Your task to perform on an android device: Search for macbook on bestbuy.com, select the first entry, and add it to the cart. Image 0: 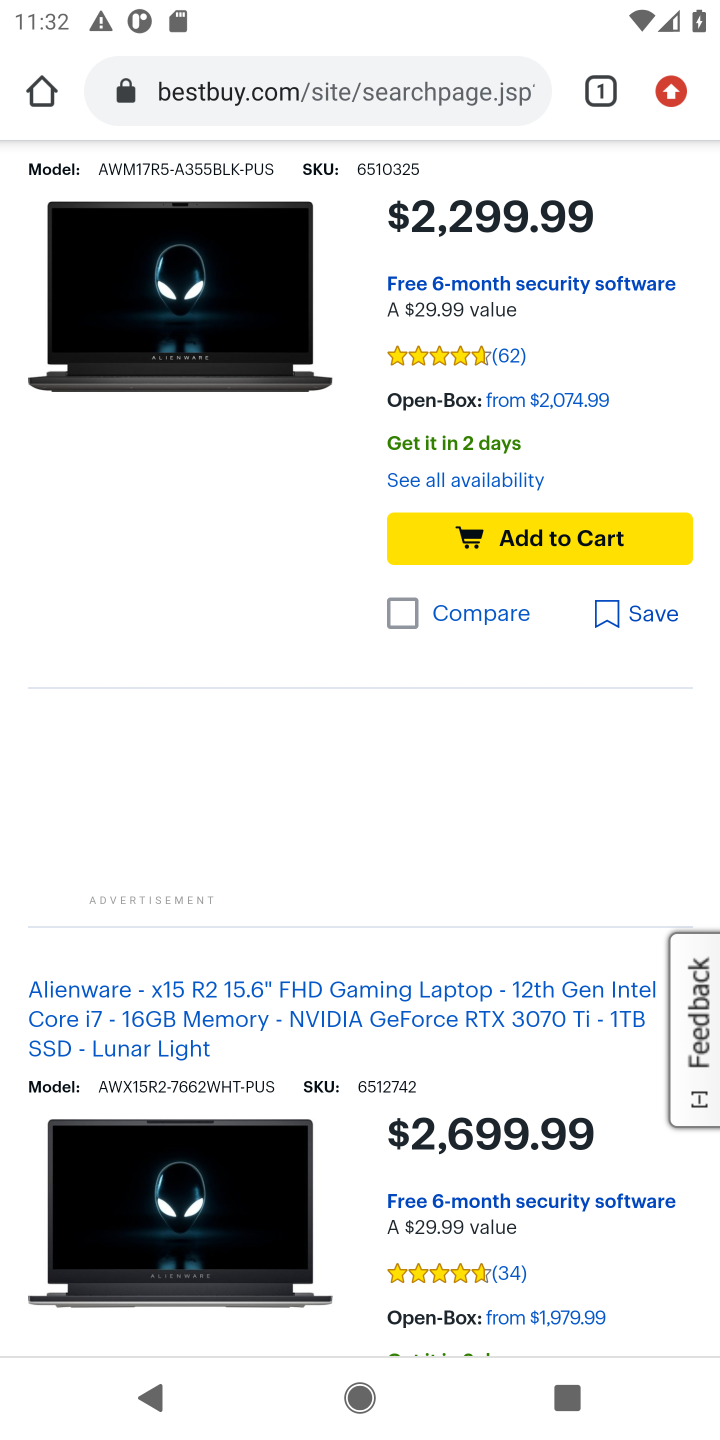
Step 0: press home button
Your task to perform on an android device: Search for macbook on bestbuy.com, select the first entry, and add it to the cart. Image 1: 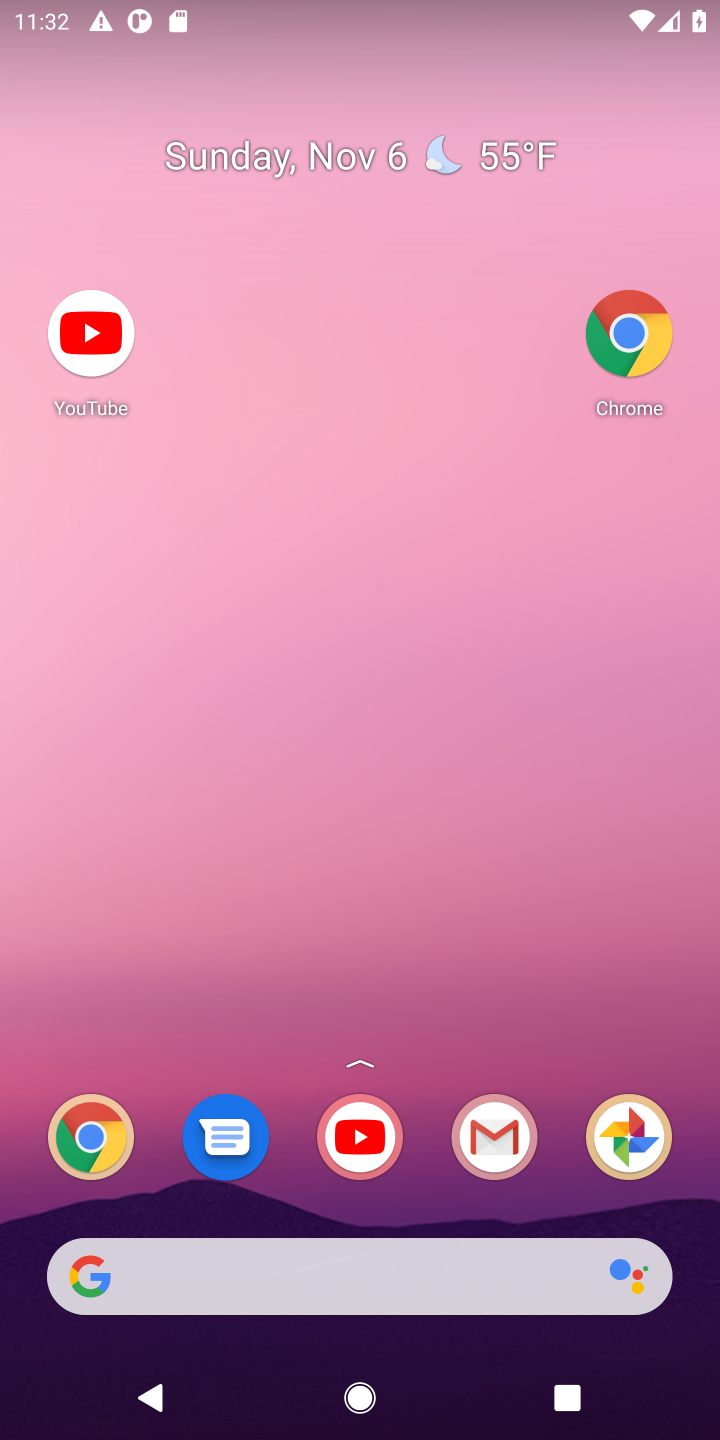
Step 1: drag from (428, 1208) to (316, 219)
Your task to perform on an android device: Search for macbook on bestbuy.com, select the first entry, and add it to the cart. Image 2: 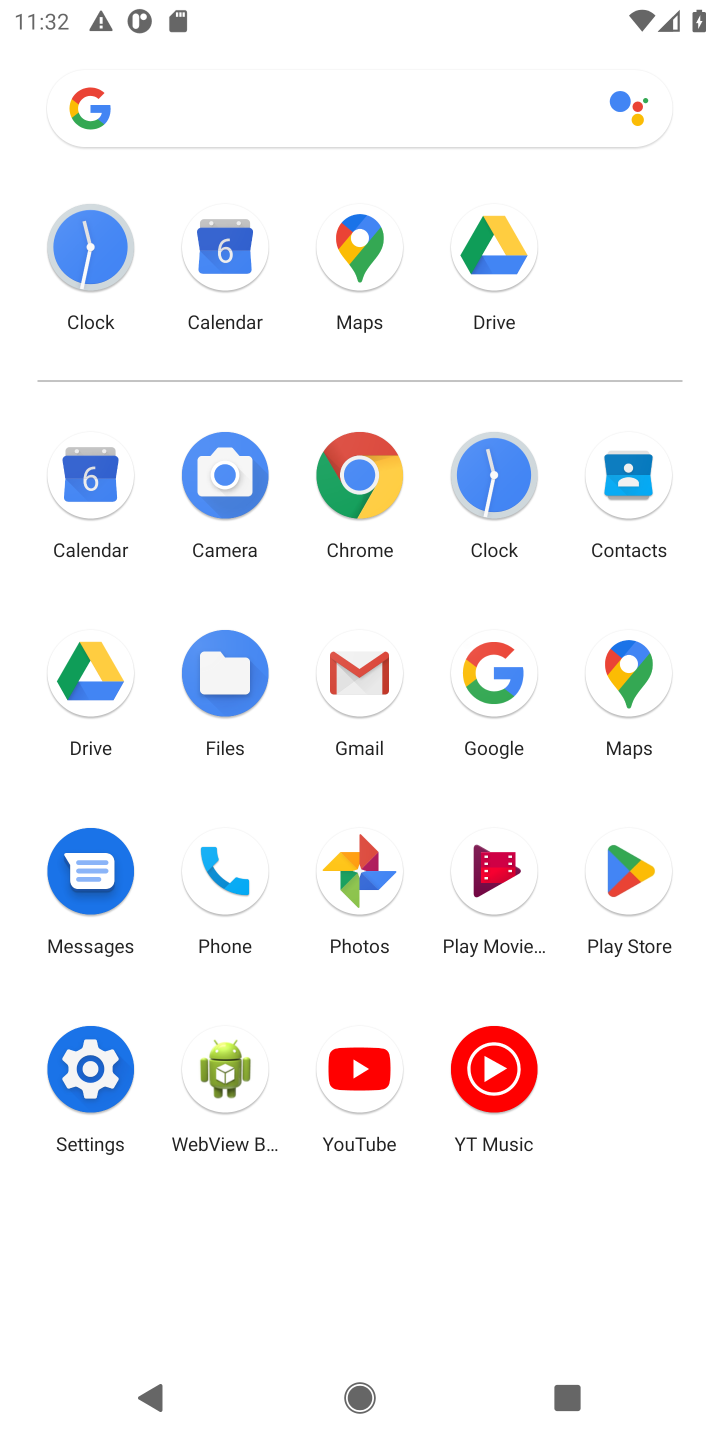
Step 2: click (360, 479)
Your task to perform on an android device: Search for macbook on bestbuy.com, select the first entry, and add it to the cart. Image 3: 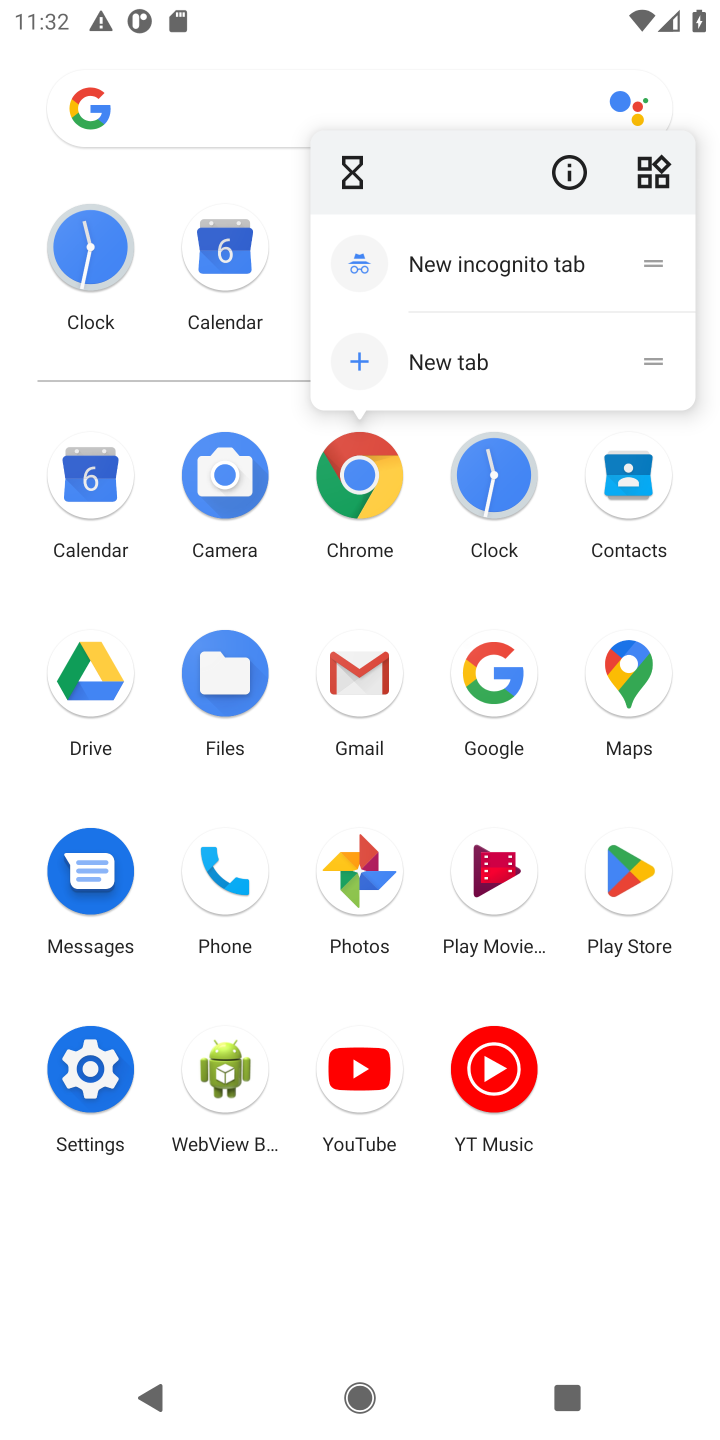
Step 3: click (350, 473)
Your task to perform on an android device: Search for macbook on bestbuy.com, select the first entry, and add it to the cart. Image 4: 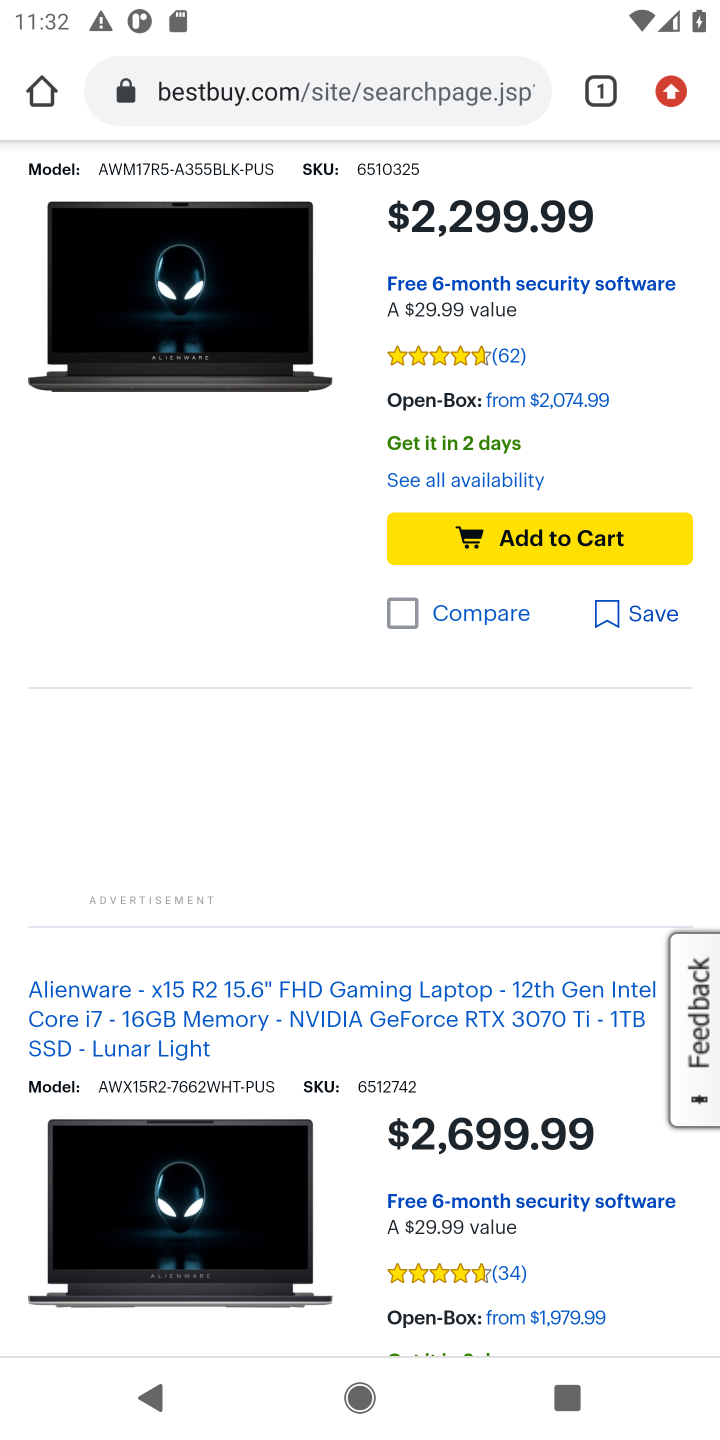
Step 4: click (386, 81)
Your task to perform on an android device: Search for macbook on bestbuy.com, select the first entry, and add it to the cart. Image 5: 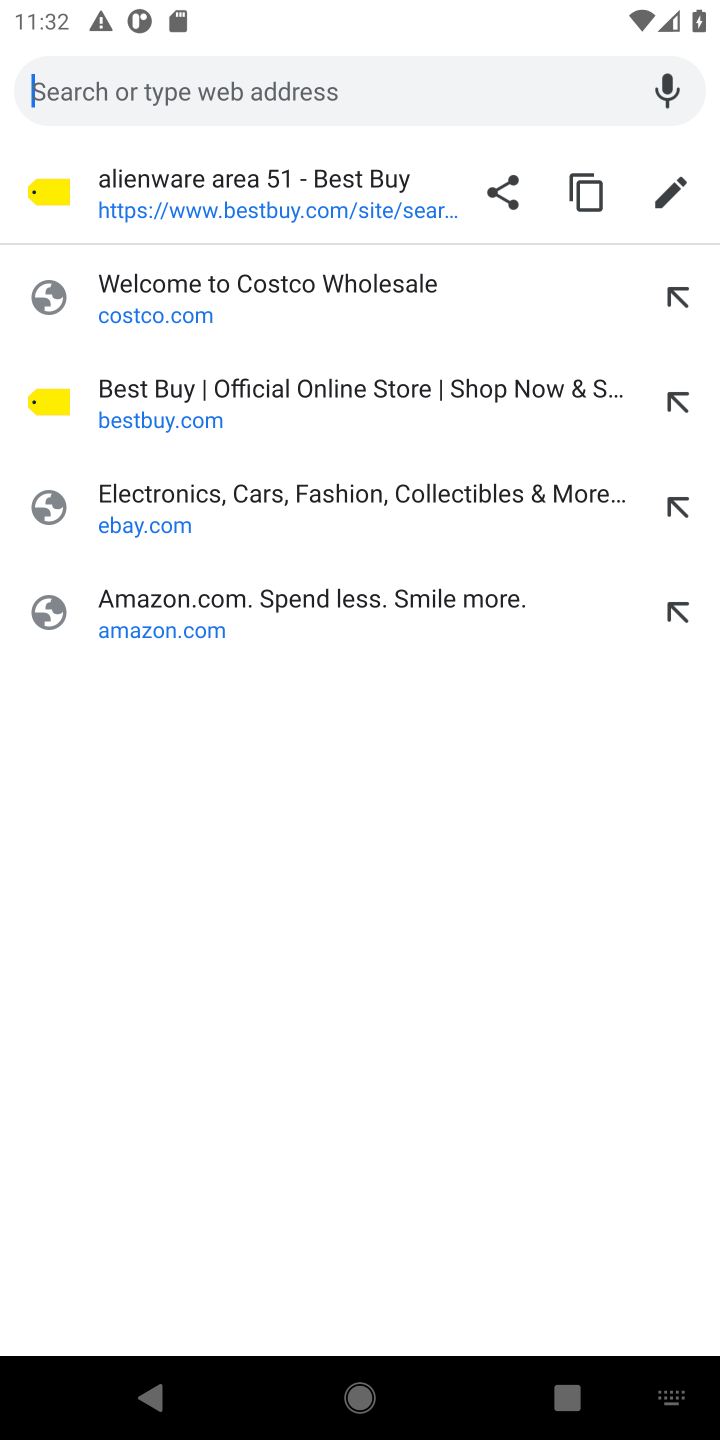
Step 5: type "bestbuy.com"
Your task to perform on an android device: Search for macbook on bestbuy.com, select the first entry, and add it to the cart. Image 6: 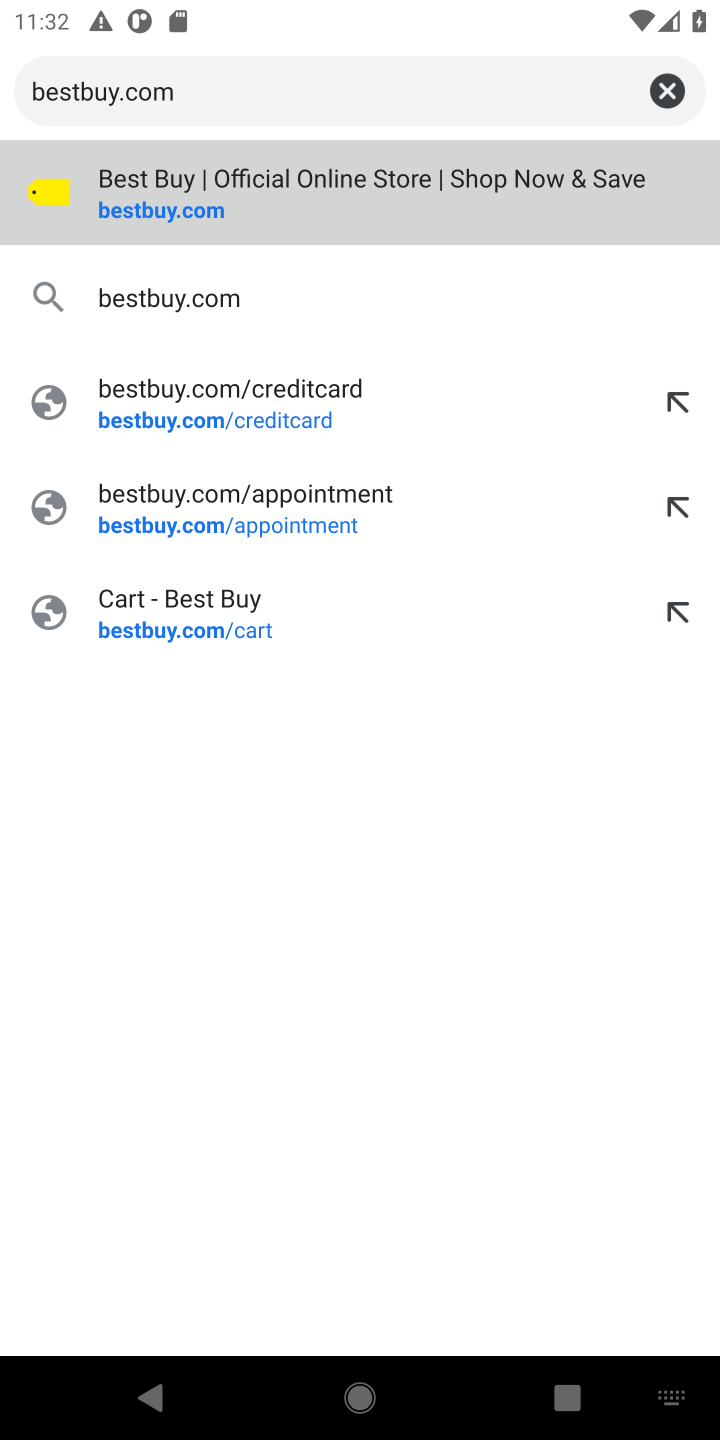
Step 6: press enter
Your task to perform on an android device: Search for macbook on bestbuy.com, select the first entry, and add it to the cart. Image 7: 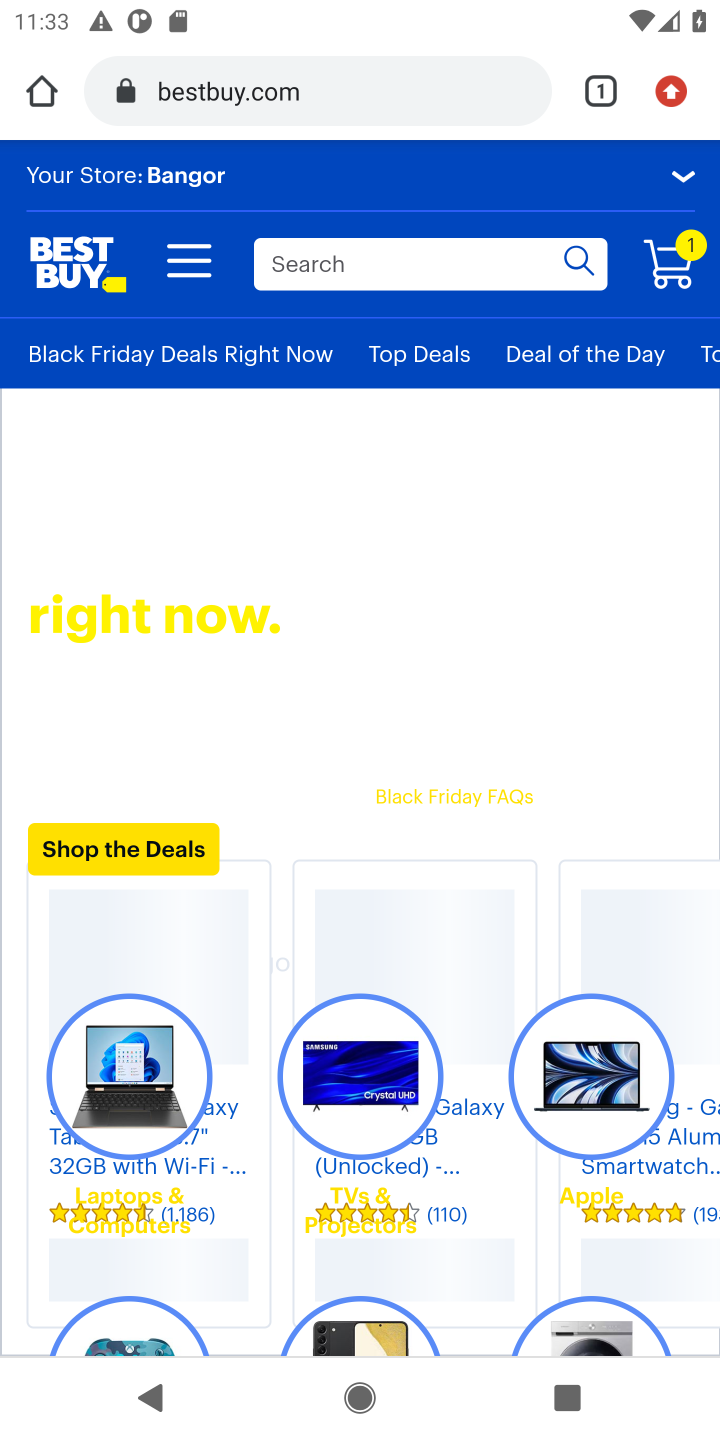
Step 7: click (446, 259)
Your task to perform on an android device: Search for macbook on bestbuy.com, select the first entry, and add it to the cart. Image 8: 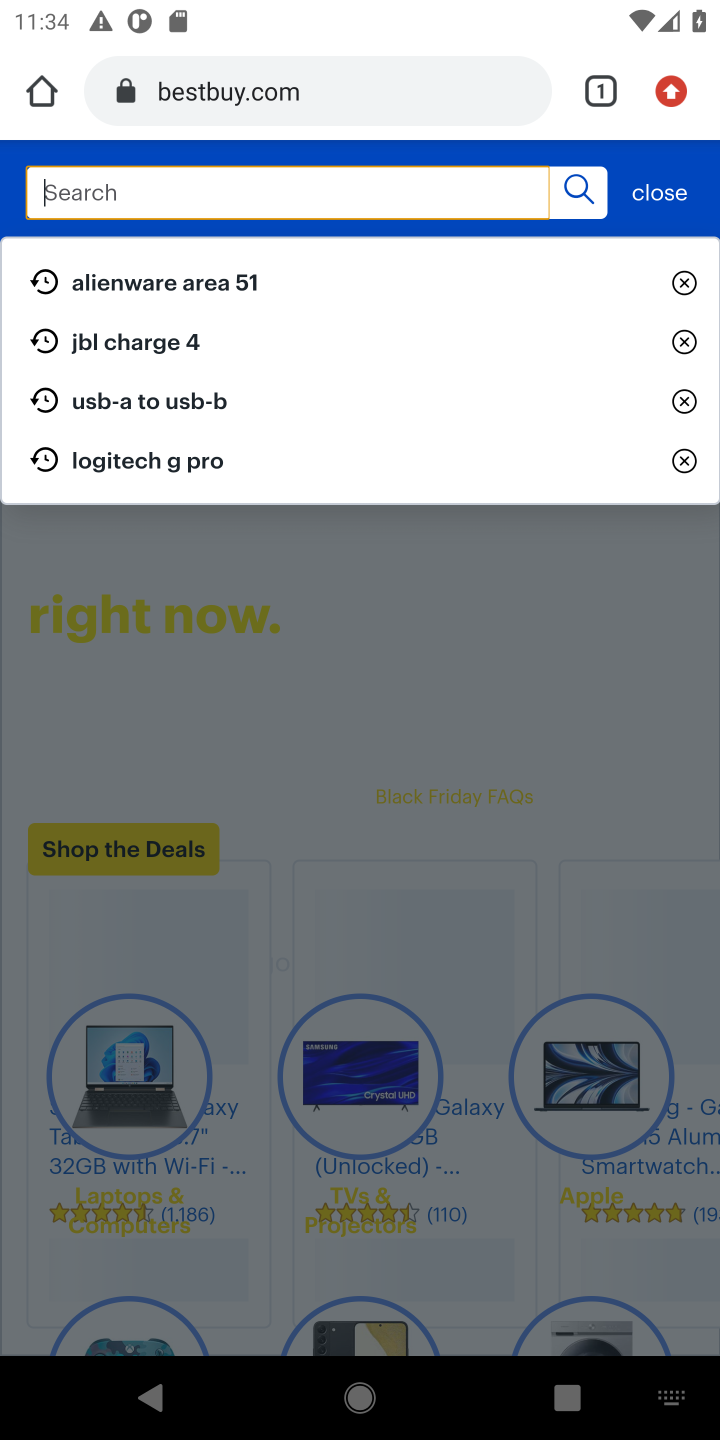
Step 8: type "macbook"
Your task to perform on an android device: Search for macbook on bestbuy.com, select the first entry, and add it to the cart. Image 9: 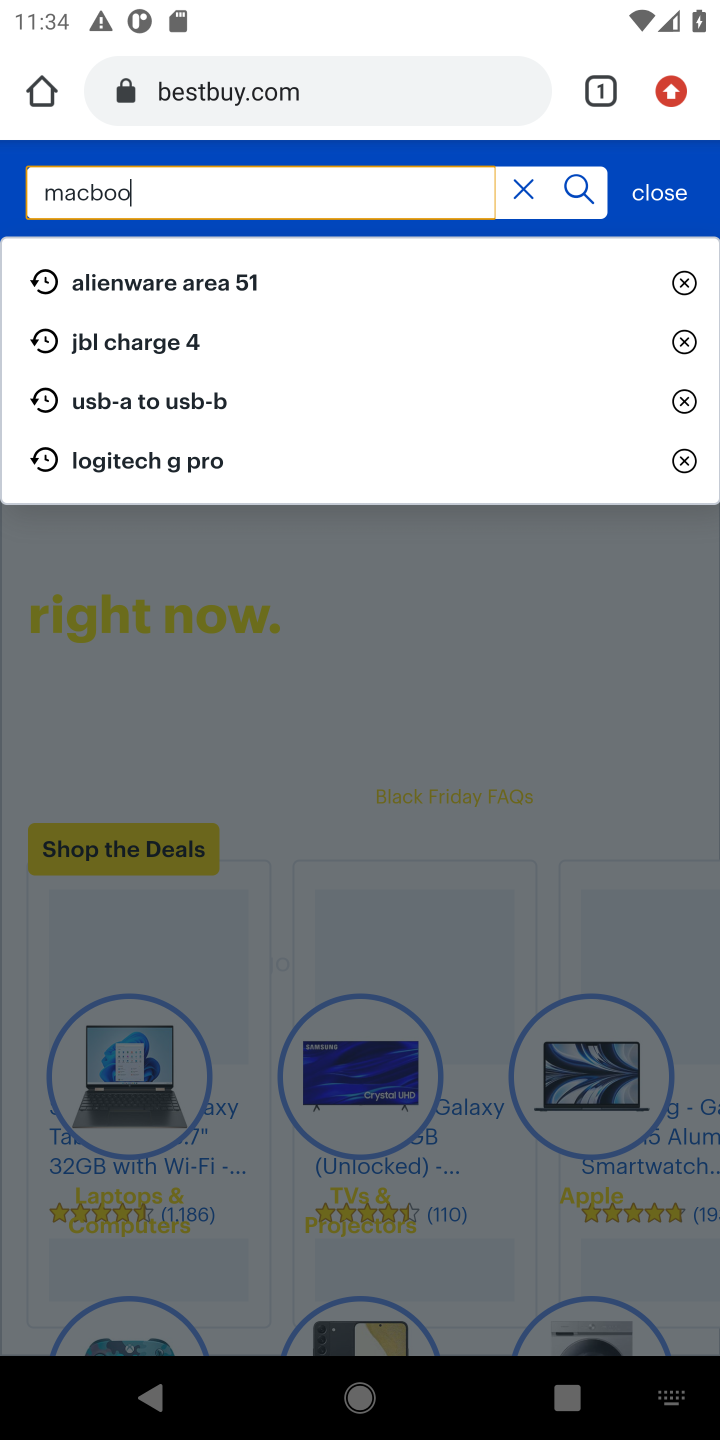
Step 9: press enter
Your task to perform on an android device: Search for macbook on bestbuy.com, select the first entry, and add it to the cart. Image 10: 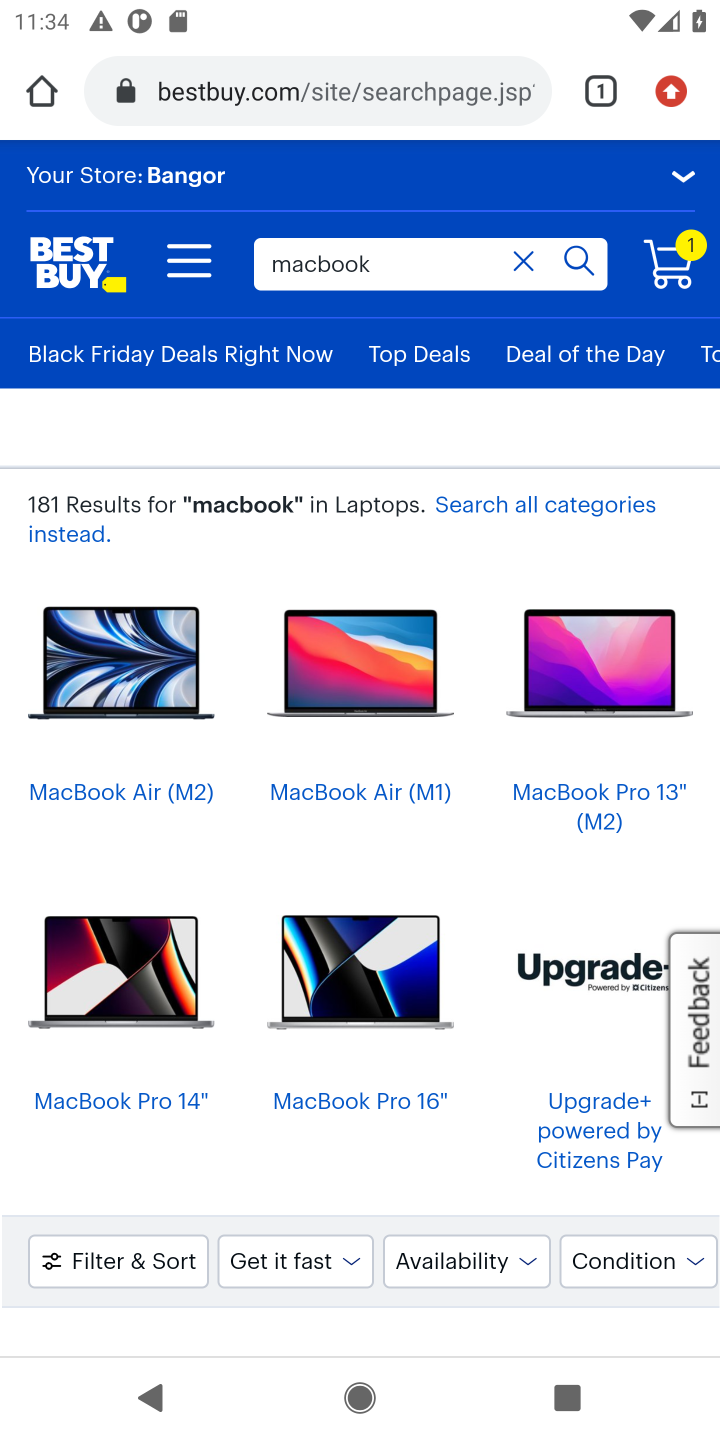
Step 10: drag from (378, 1025) to (383, 359)
Your task to perform on an android device: Search for macbook on bestbuy.com, select the first entry, and add it to the cart. Image 11: 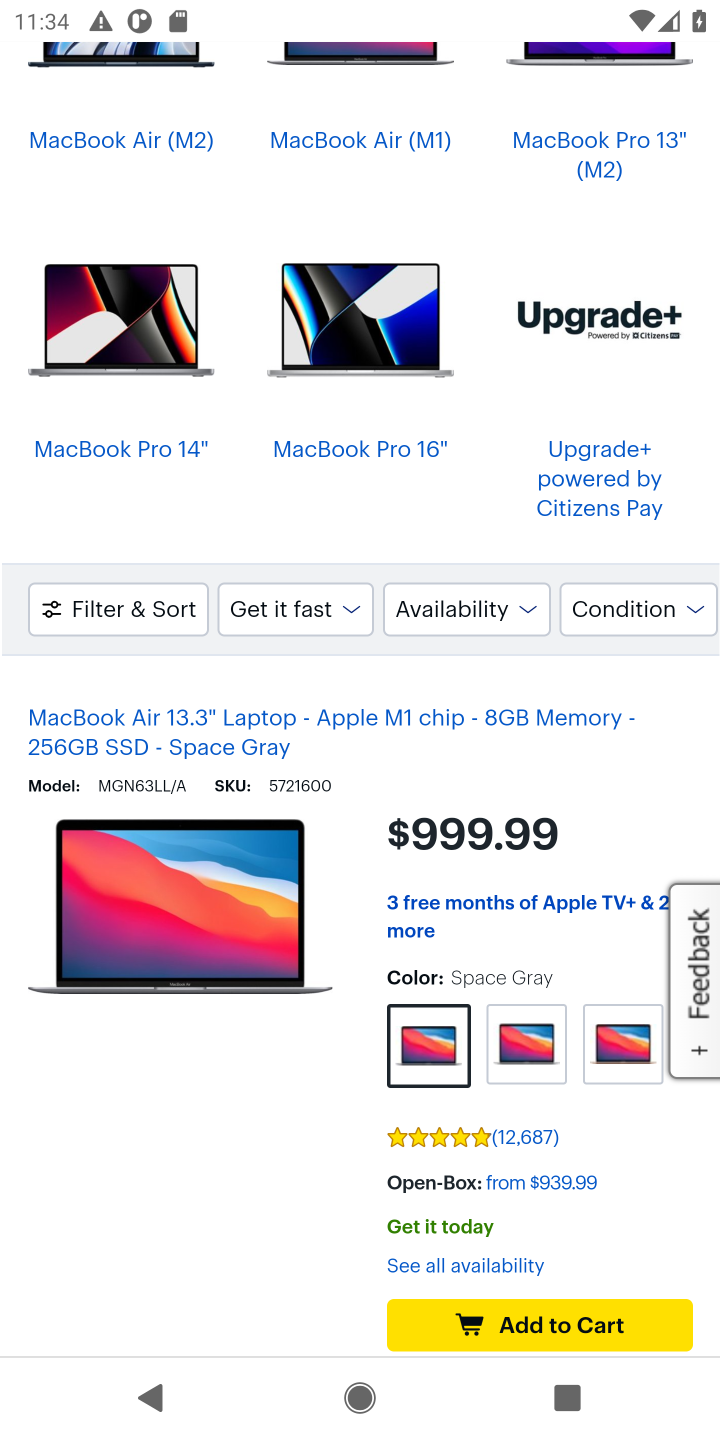
Step 11: click (566, 1325)
Your task to perform on an android device: Search for macbook on bestbuy.com, select the first entry, and add it to the cart. Image 12: 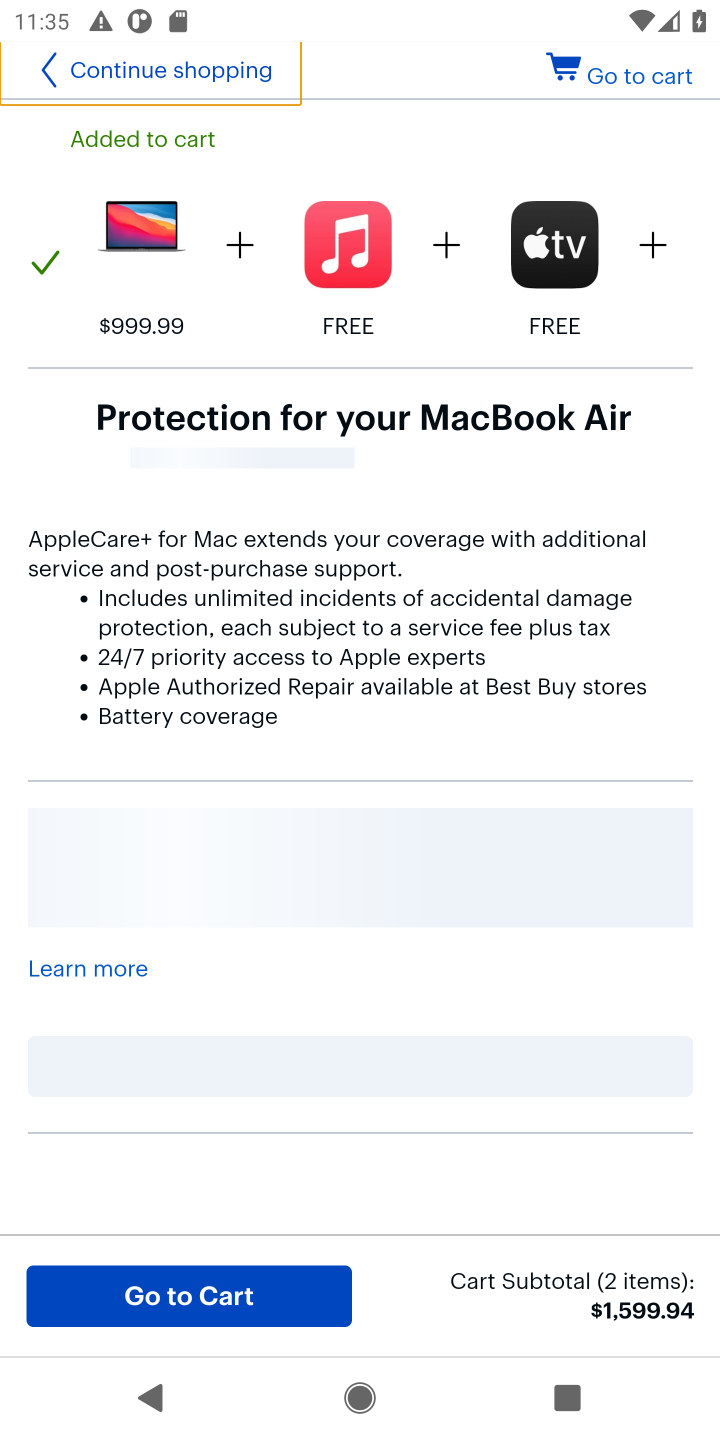
Step 12: task complete